Your task to perform on an android device: Go to calendar. Show me events next week Image 0: 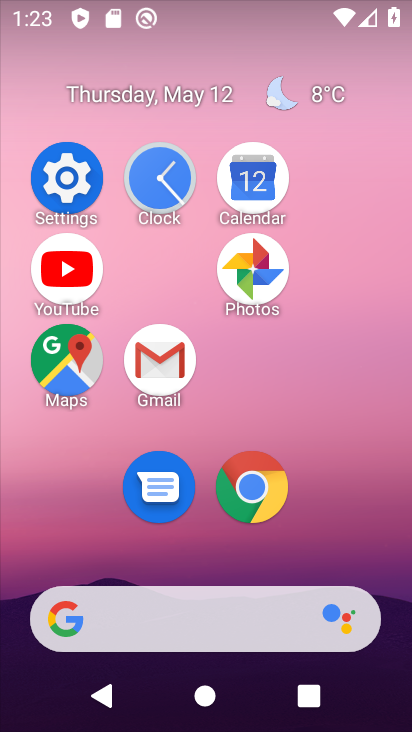
Step 0: click (266, 174)
Your task to perform on an android device: Go to calendar. Show me events next week Image 1: 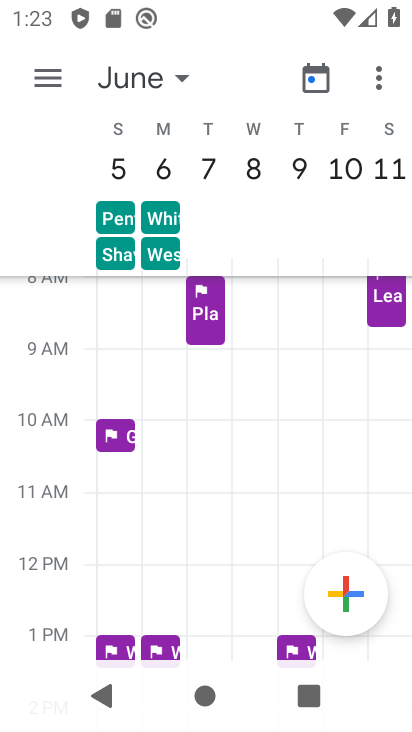
Step 1: click (173, 74)
Your task to perform on an android device: Go to calendar. Show me events next week Image 2: 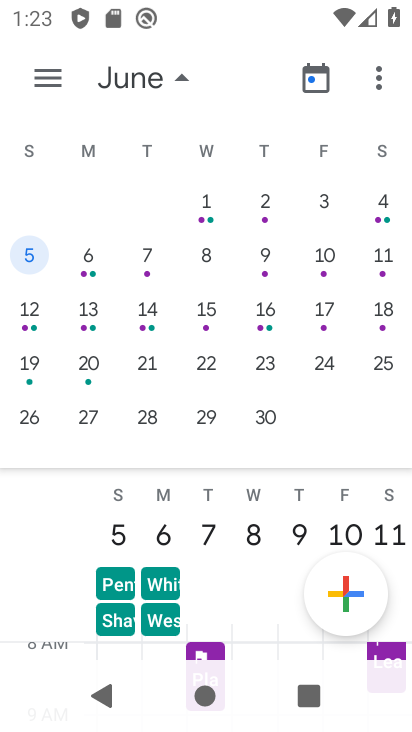
Step 2: drag from (75, 275) to (403, 287)
Your task to perform on an android device: Go to calendar. Show me events next week Image 3: 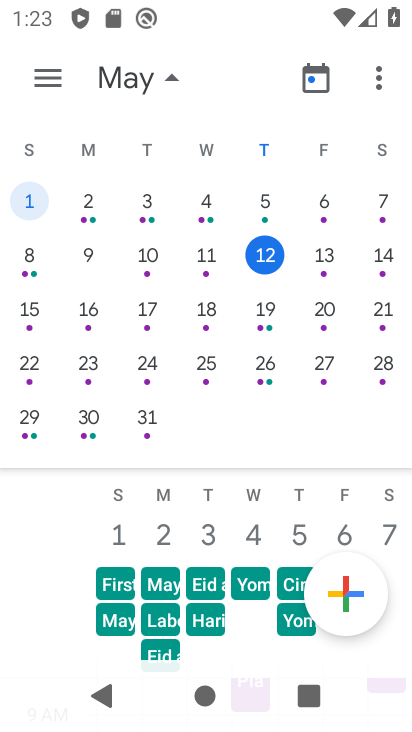
Step 3: click (53, 69)
Your task to perform on an android device: Go to calendar. Show me events next week Image 4: 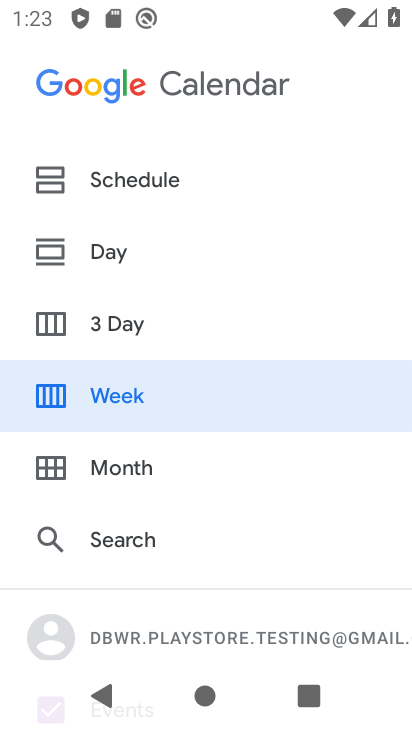
Step 4: click (140, 390)
Your task to perform on an android device: Go to calendar. Show me events next week Image 5: 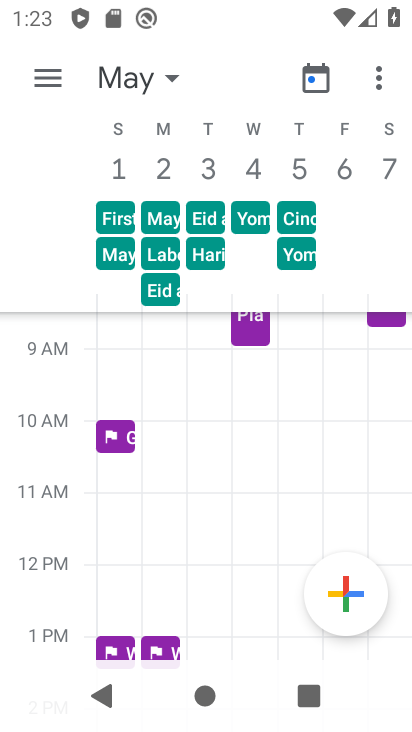
Step 5: task complete